Your task to perform on an android device: Empty the shopping cart on costco.com. Add "usb-a to usb-b" to the cart on costco.com, then select checkout. Image 0: 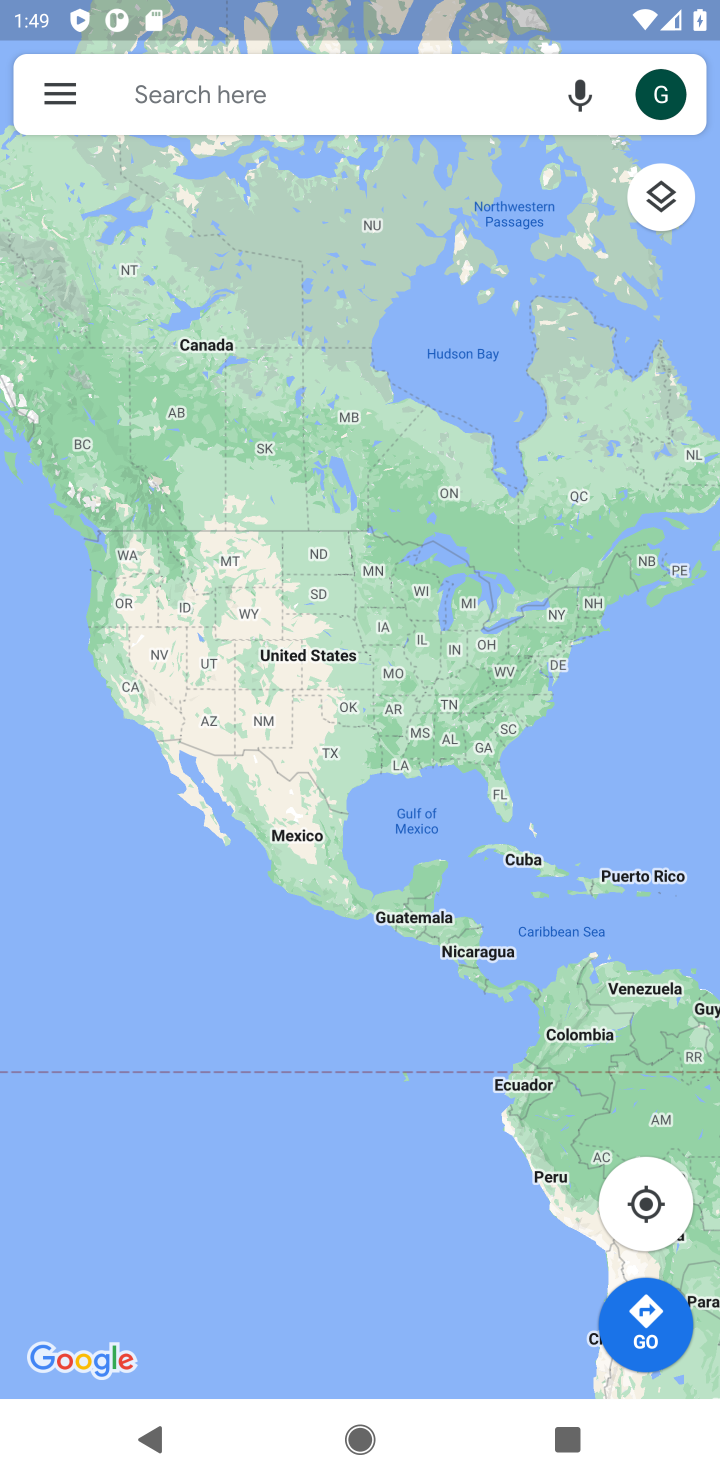
Step 0: press home button
Your task to perform on an android device: Empty the shopping cart on costco.com. Add "usb-a to usb-b" to the cart on costco.com, then select checkout. Image 1: 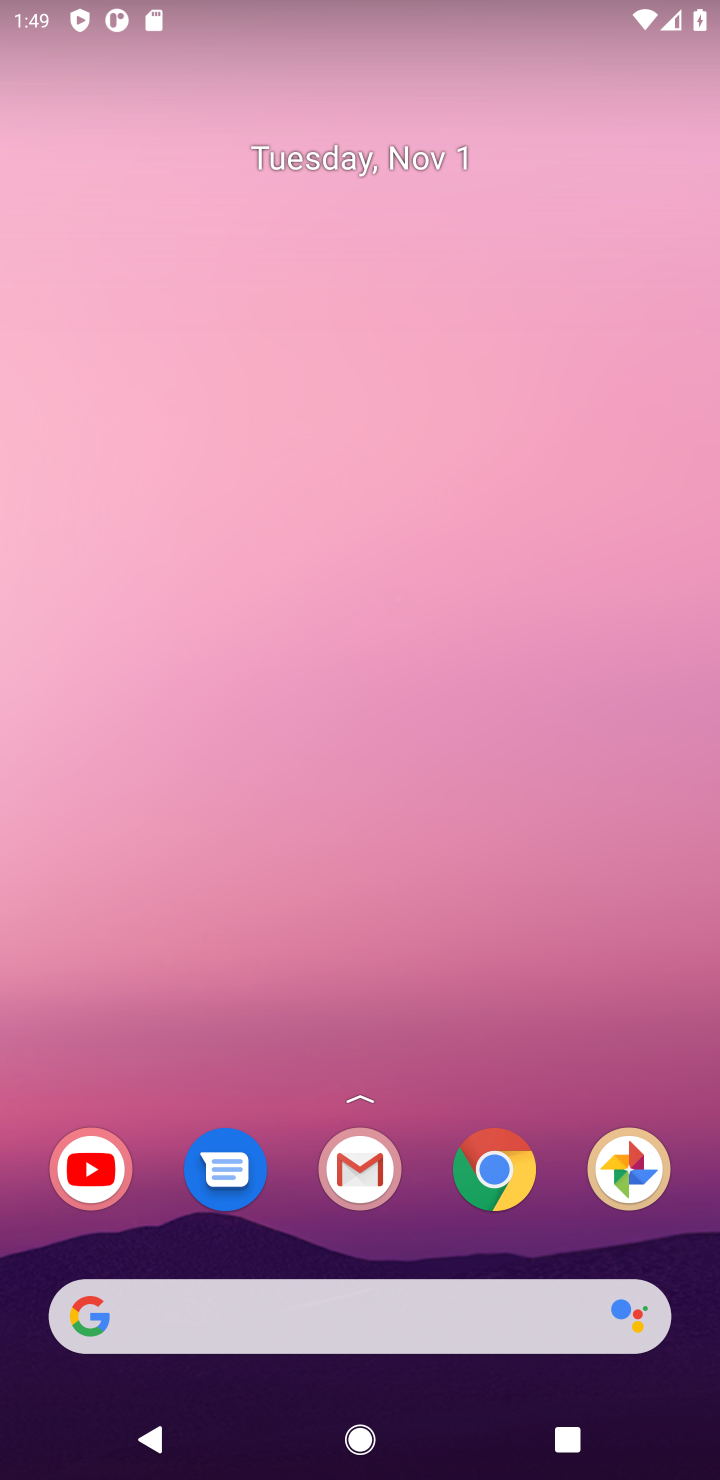
Step 1: click (498, 1153)
Your task to perform on an android device: Empty the shopping cart on costco.com. Add "usb-a to usb-b" to the cart on costco.com, then select checkout. Image 2: 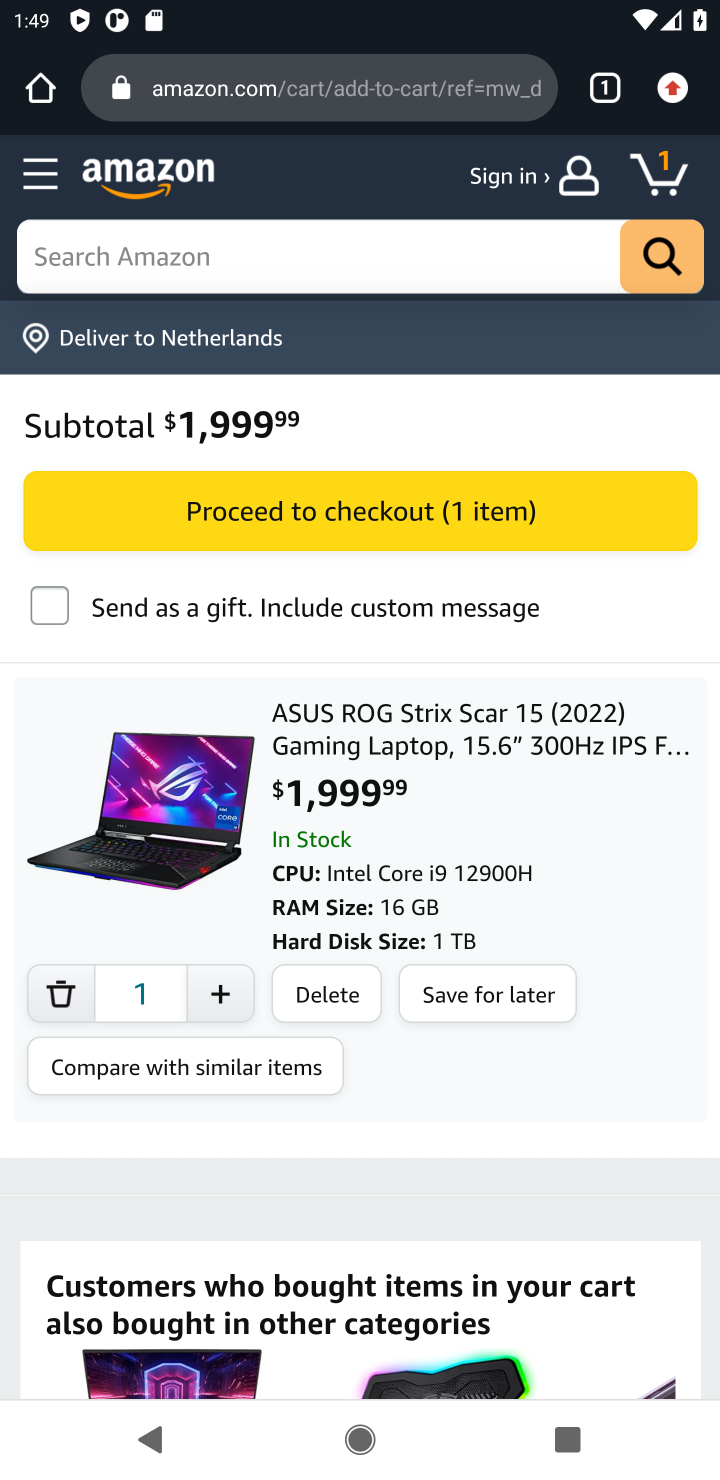
Step 2: click (232, 102)
Your task to perform on an android device: Empty the shopping cart on costco.com. Add "usb-a to usb-b" to the cart on costco.com, then select checkout. Image 3: 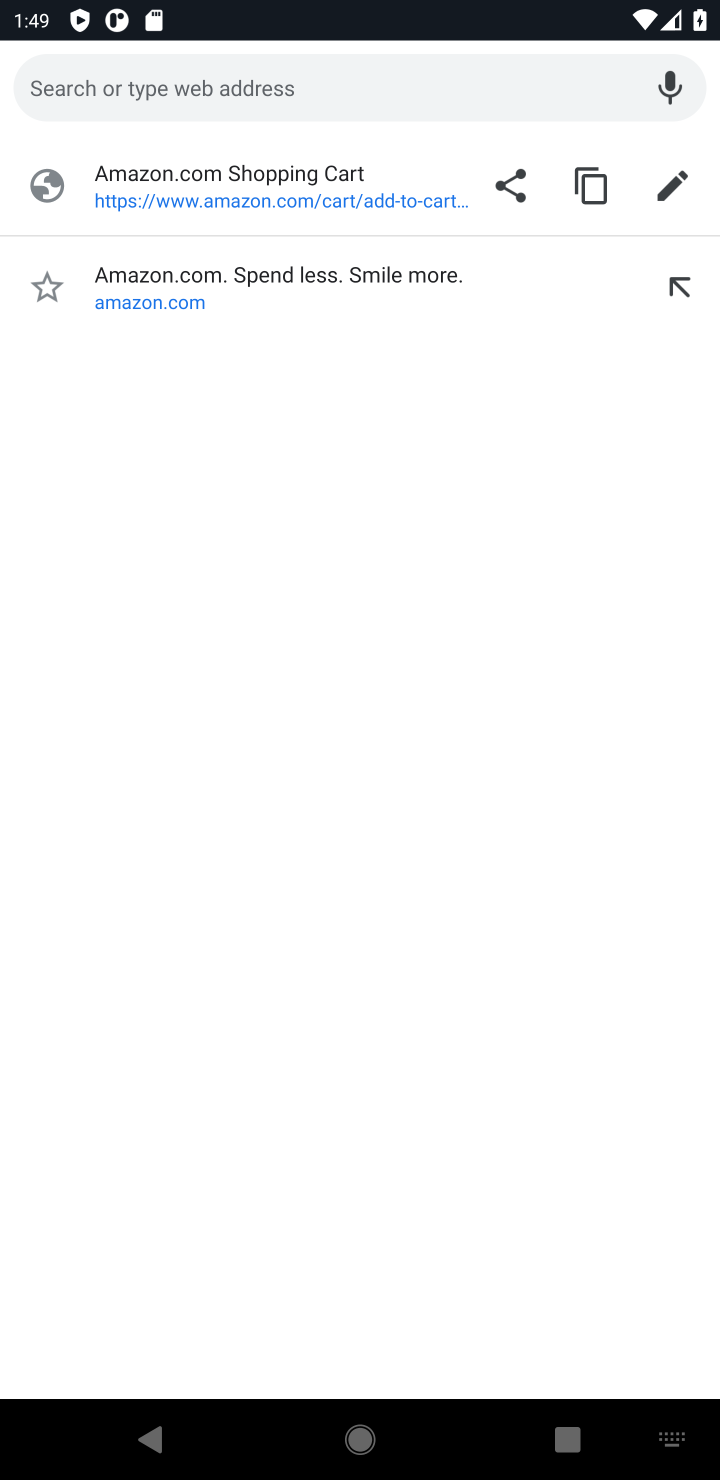
Step 3: type "costco"
Your task to perform on an android device: Empty the shopping cart on costco.com. Add "usb-a to usb-b" to the cart on costco.com, then select checkout. Image 4: 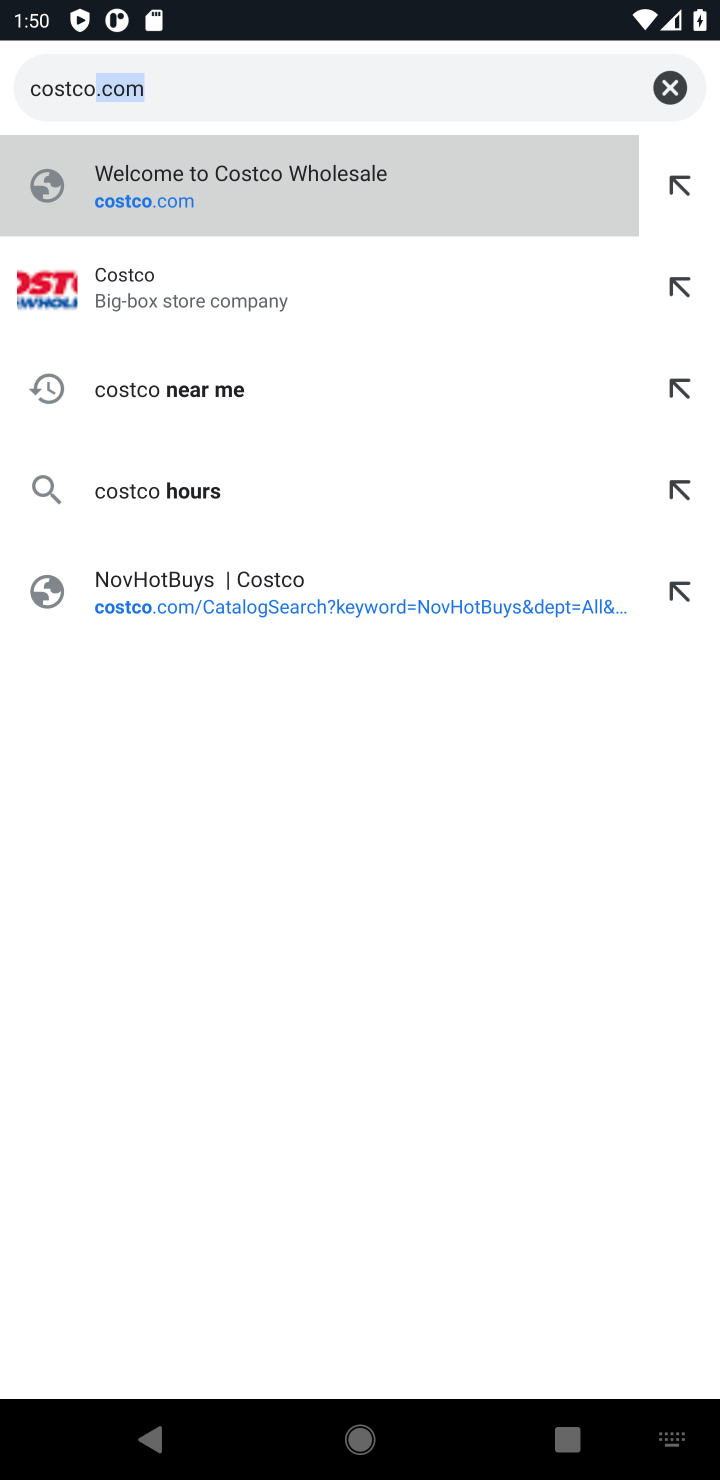
Step 4: click (185, 269)
Your task to perform on an android device: Empty the shopping cart on costco.com. Add "usb-a to usb-b" to the cart on costco.com, then select checkout. Image 5: 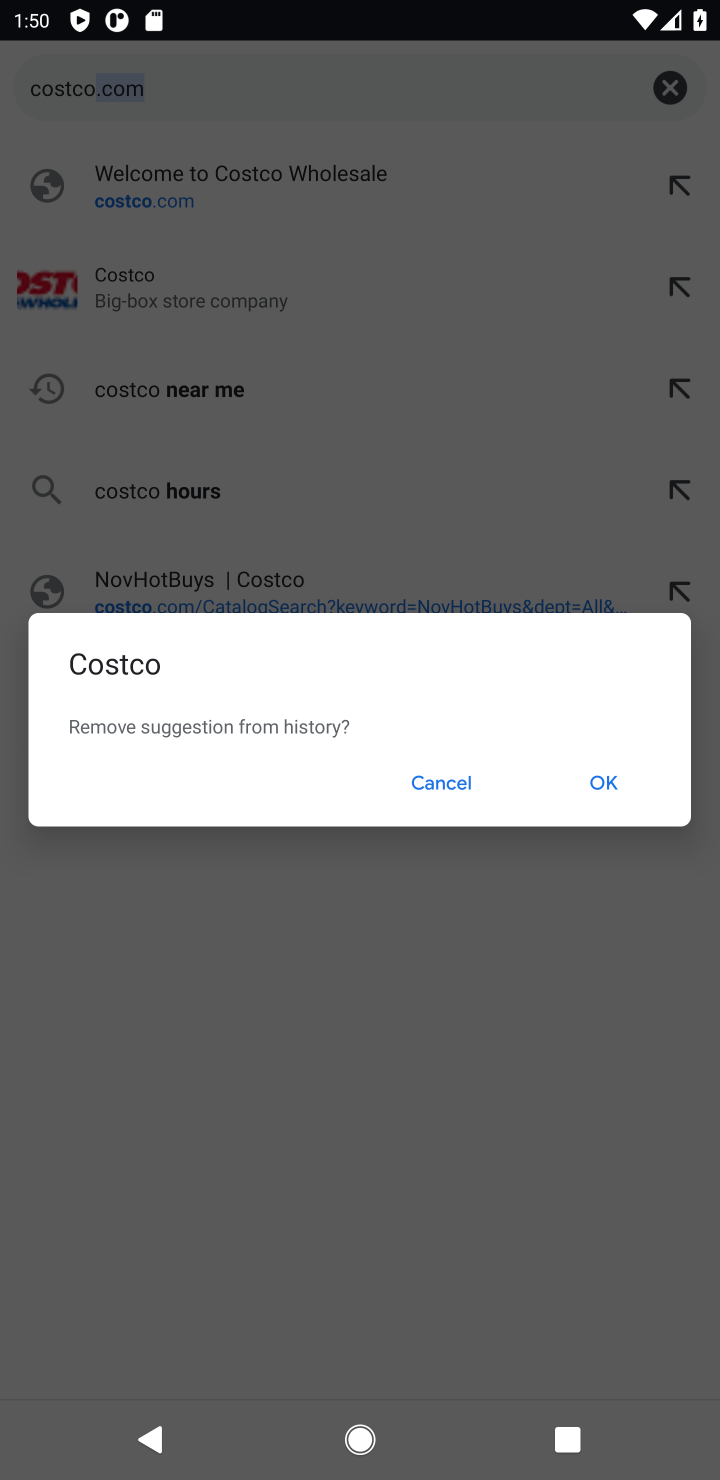
Step 5: click (611, 783)
Your task to perform on an android device: Empty the shopping cart on costco.com. Add "usb-a to usb-b" to the cart on costco.com, then select checkout. Image 6: 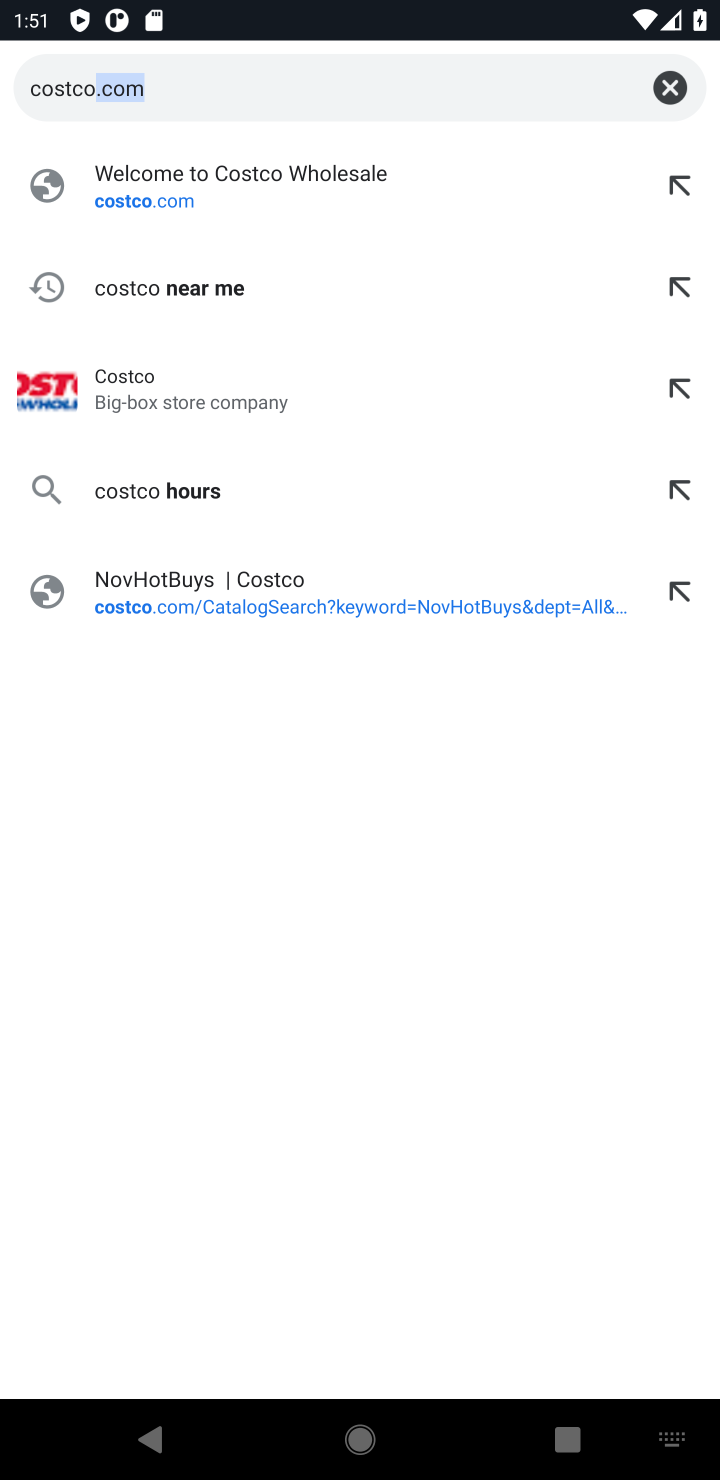
Step 6: click (44, 389)
Your task to perform on an android device: Empty the shopping cart on costco.com. Add "usb-a to usb-b" to the cart on costco.com, then select checkout. Image 7: 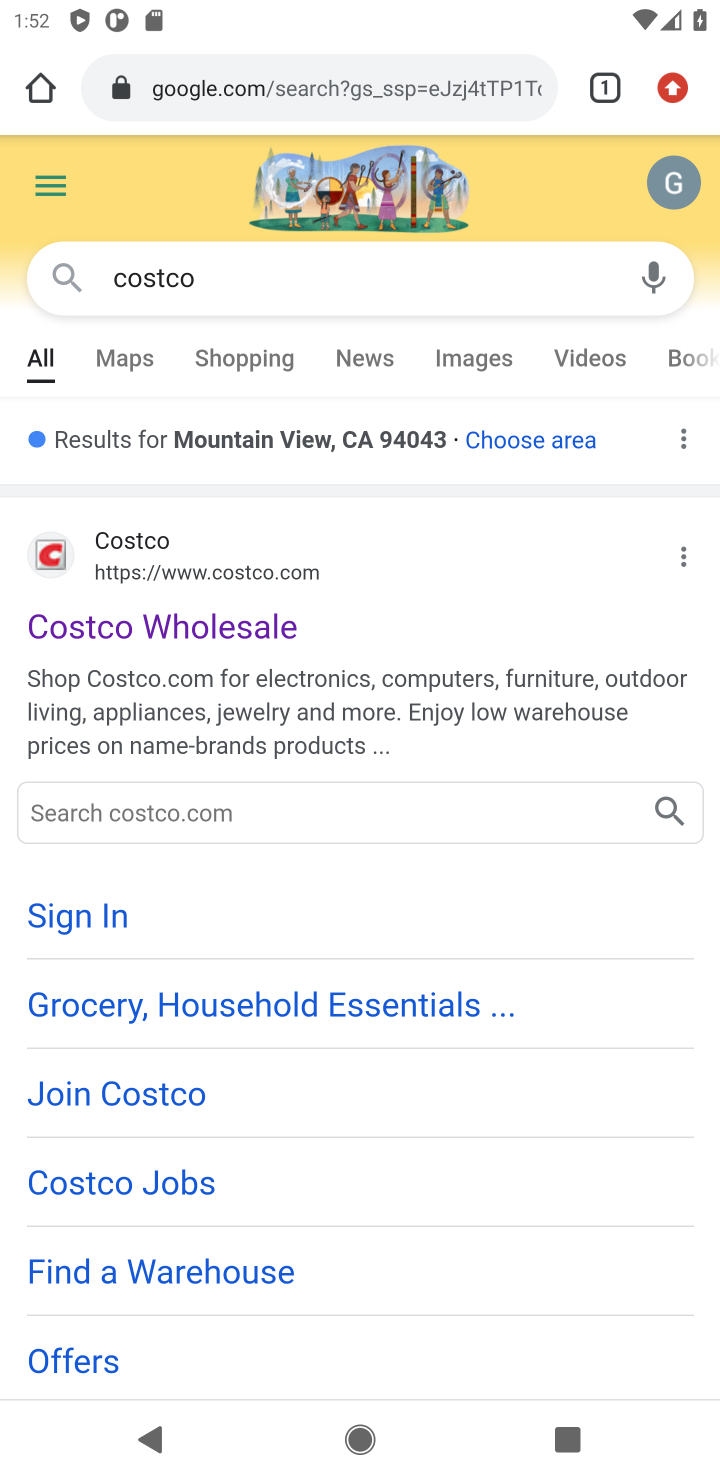
Step 7: click (211, 633)
Your task to perform on an android device: Empty the shopping cart on costco.com. Add "usb-a to usb-b" to the cart on costco.com, then select checkout. Image 8: 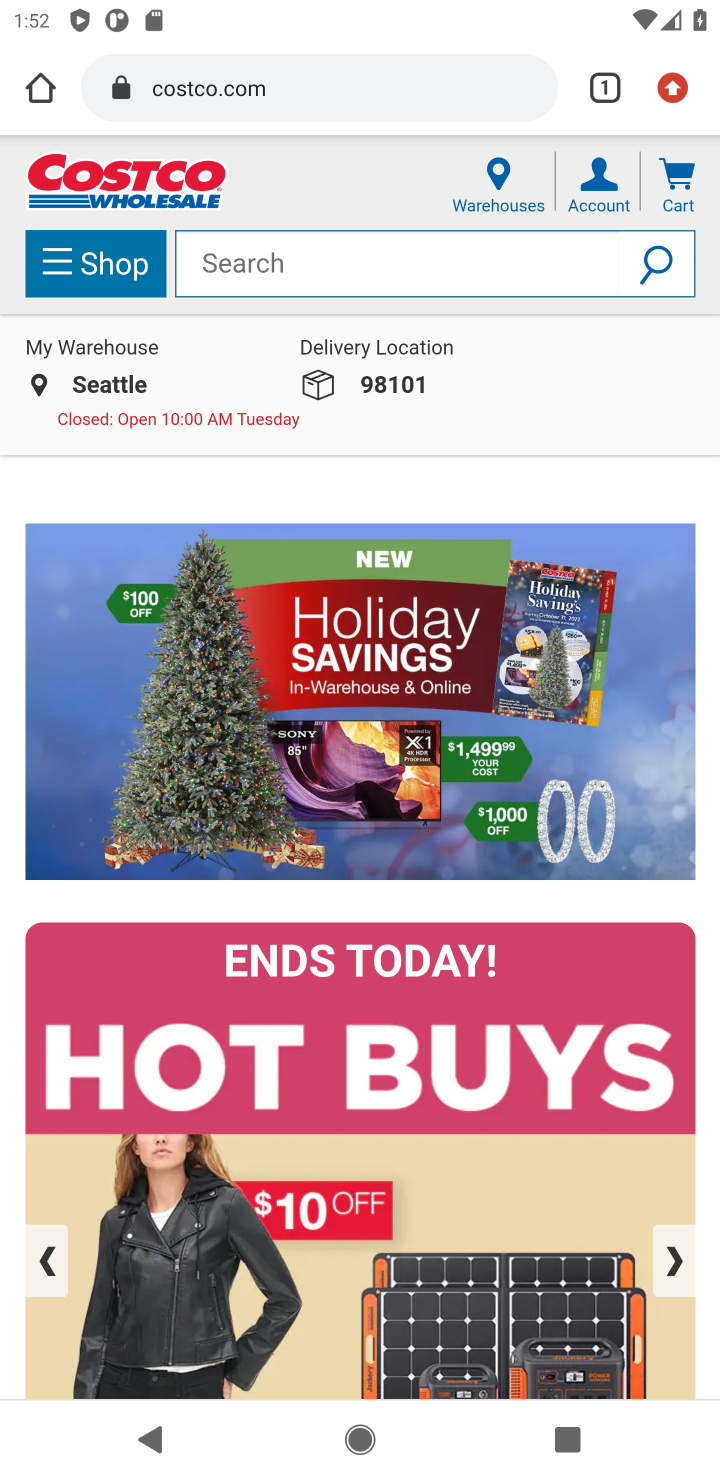
Step 8: click (340, 277)
Your task to perform on an android device: Empty the shopping cart on costco.com. Add "usb-a to usb-b" to the cart on costco.com, then select checkout. Image 9: 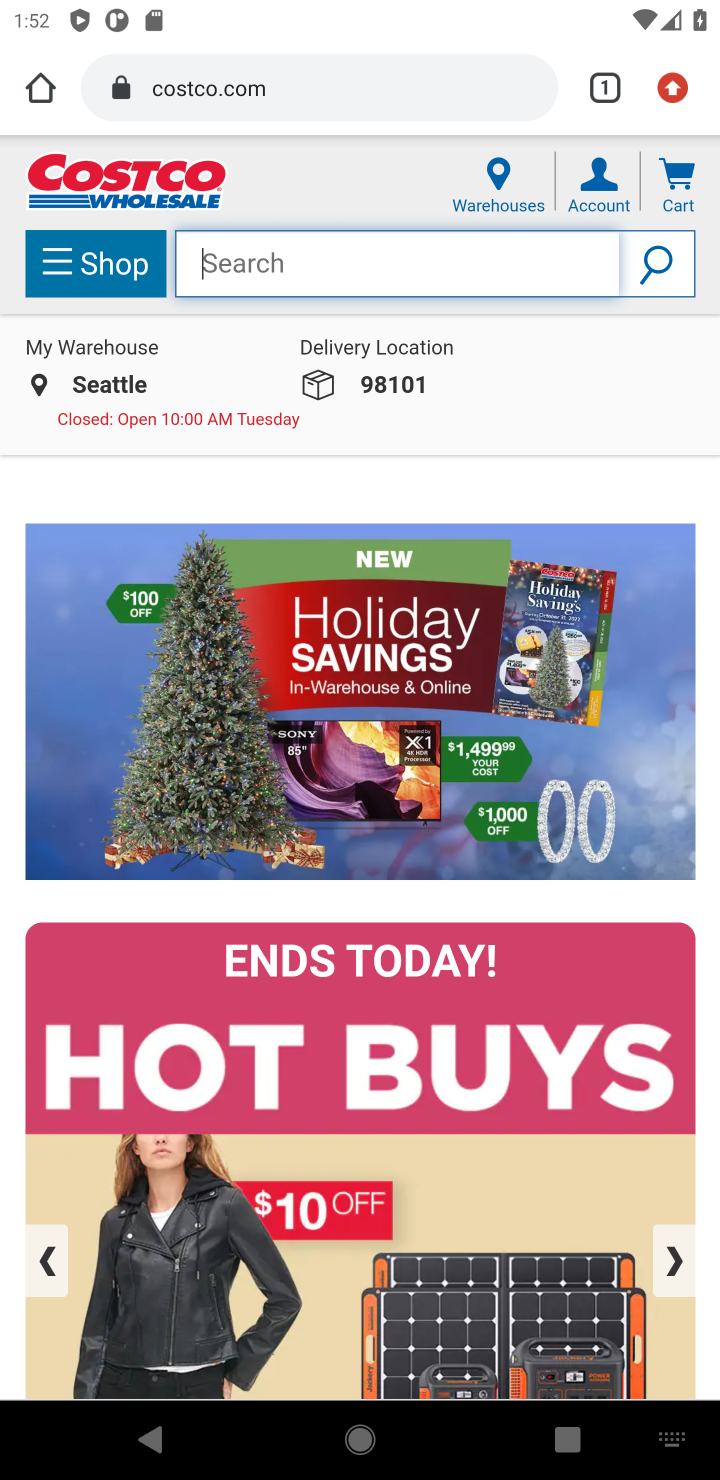
Step 9: click (372, 242)
Your task to perform on an android device: Empty the shopping cart on costco.com. Add "usb-a to usb-b" to the cart on costco.com, then select checkout. Image 10: 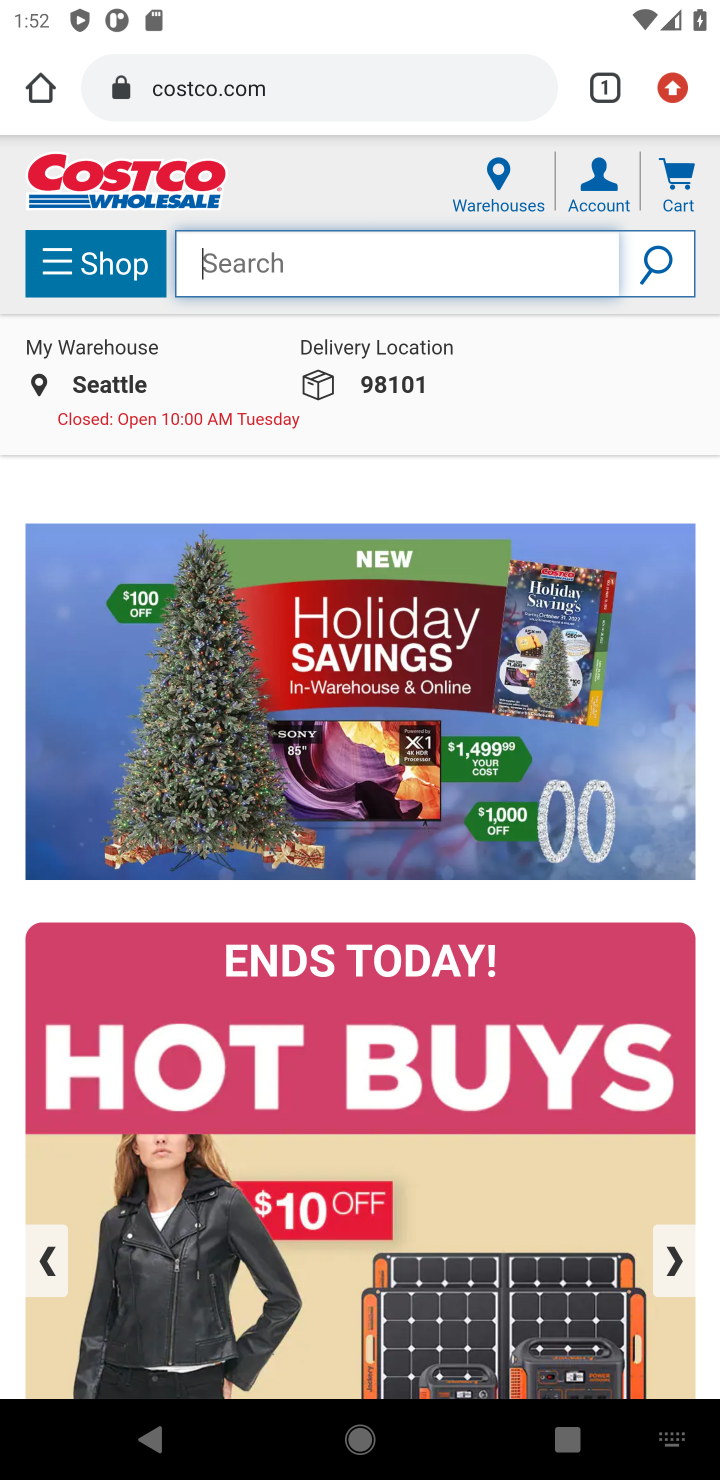
Step 10: type "usb-a to usb-b"
Your task to perform on an android device: Empty the shopping cart on costco.com. Add "usb-a to usb-b" to the cart on costco.com, then select checkout. Image 11: 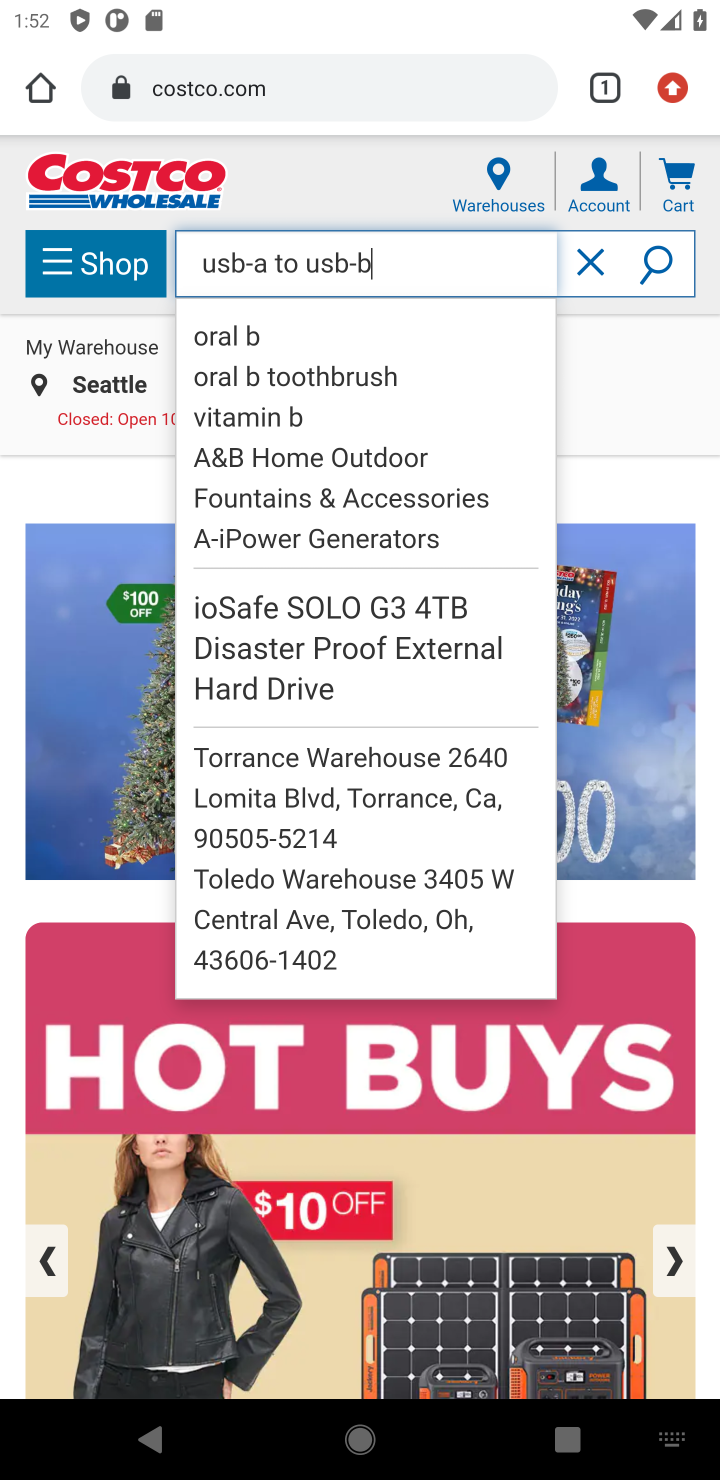
Step 11: click (666, 249)
Your task to perform on an android device: Empty the shopping cart on costco.com. Add "usb-a to usb-b" to the cart on costco.com, then select checkout. Image 12: 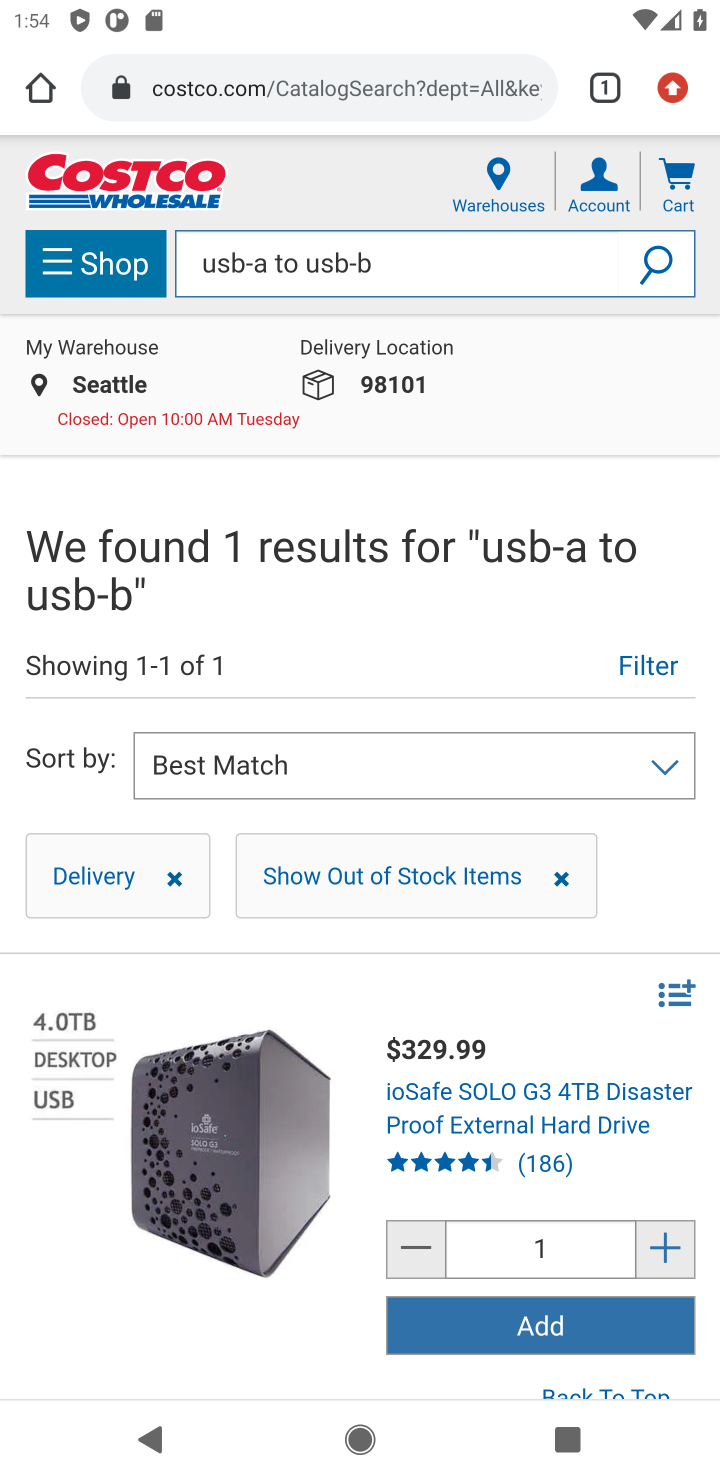
Step 12: task complete